Your task to perform on an android device: turn notification dots off Image 0: 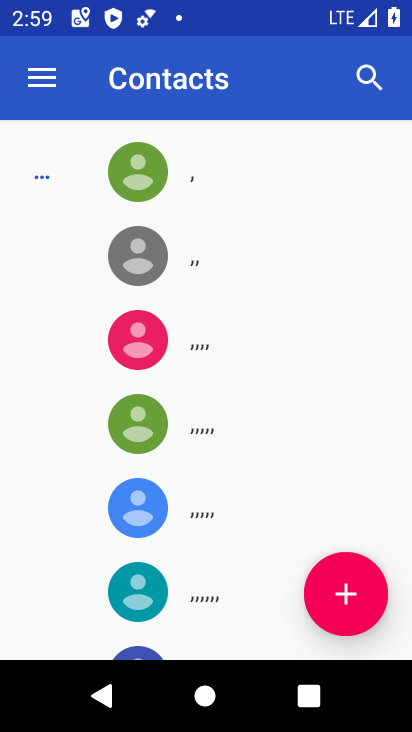
Step 0: press home button
Your task to perform on an android device: turn notification dots off Image 1: 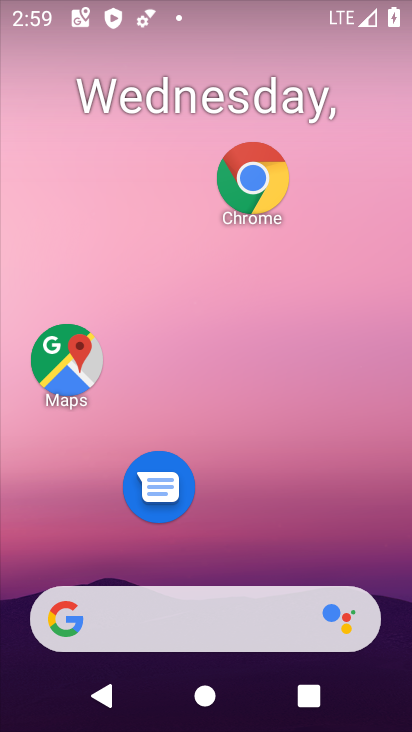
Step 1: drag from (206, 548) to (335, 36)
Your task to perform on an android device: turn notification dots off Image 2: 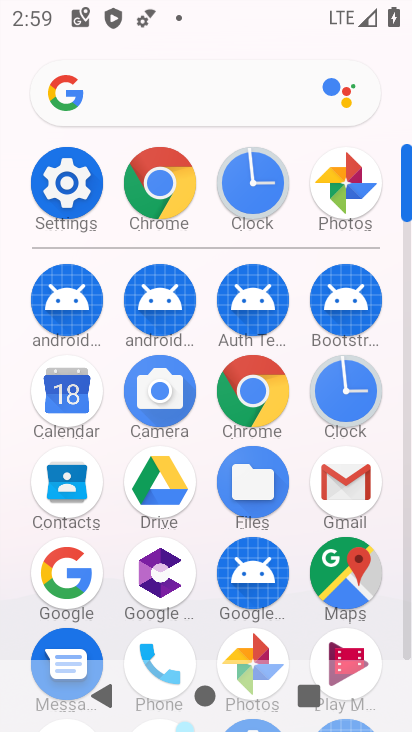
Step 2: click (68, 186)
Your task to perform on an android device: turn notification dots off Image 3: 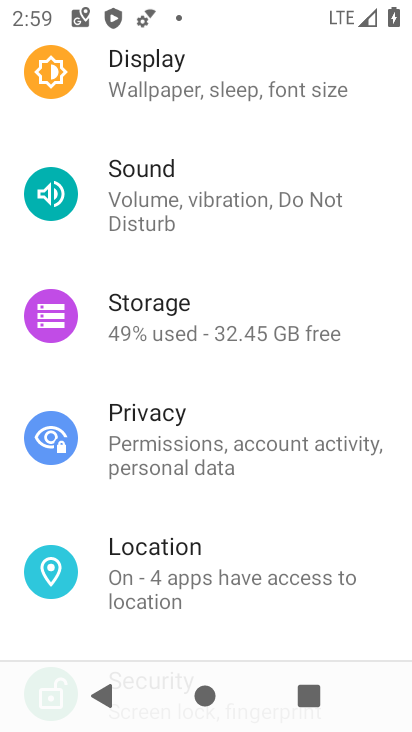
Step 3: drag from (222, 258) to (213, 477)
Your task to perform on an android device: turn notification dots off Image 4: 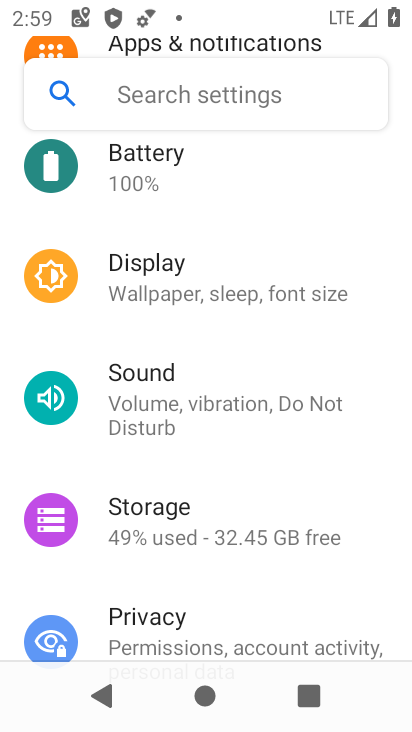
Step 4: drag from (184, 326) to (222, 517)
Your task to perform on an android device: turn notification dots off Image 5: 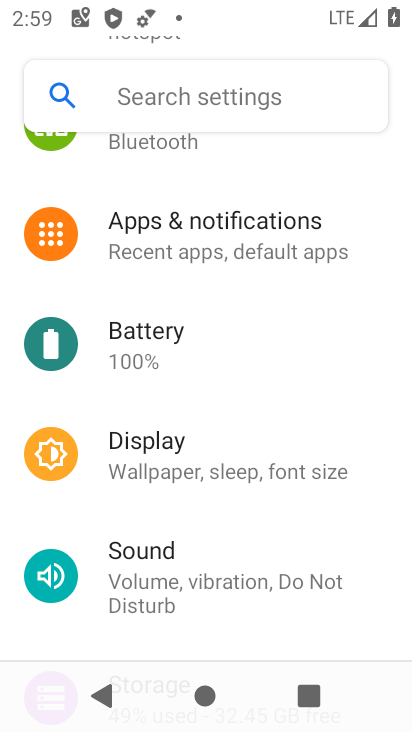
Step 5: click (256, 252)
Your task to perform on an android device: turn notification dots off Image 6: 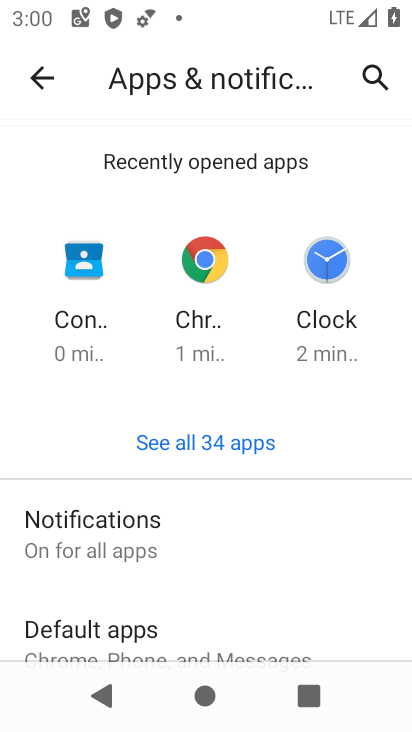
Step 6: click (239, 550)
Your task to perform on an android device: turn notification dots off Image 7: 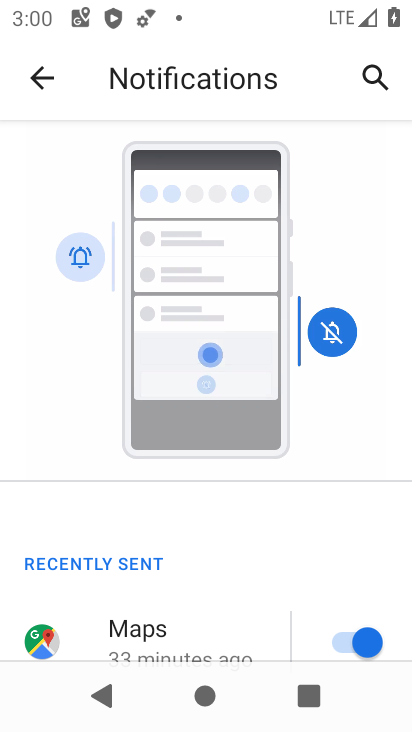
Step 7: drag from (238, 605) to (350, 175)
Your task to perform on an android device: turn notification dots off Image 8: 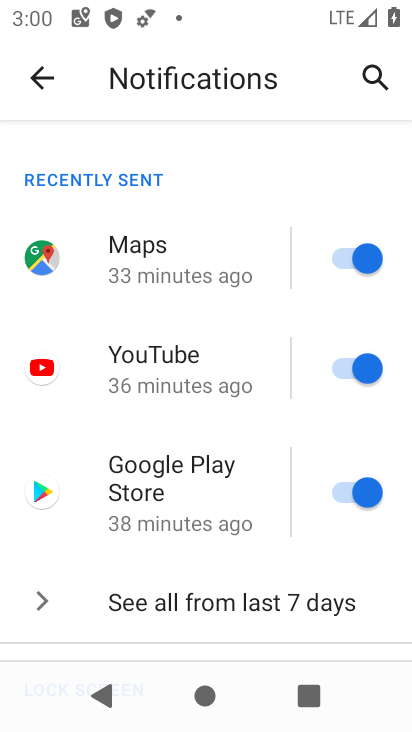
Step 8: drag from (162, 532) to (259, 203)
Your task to perform on an android device: turn notification dots off Image 9: 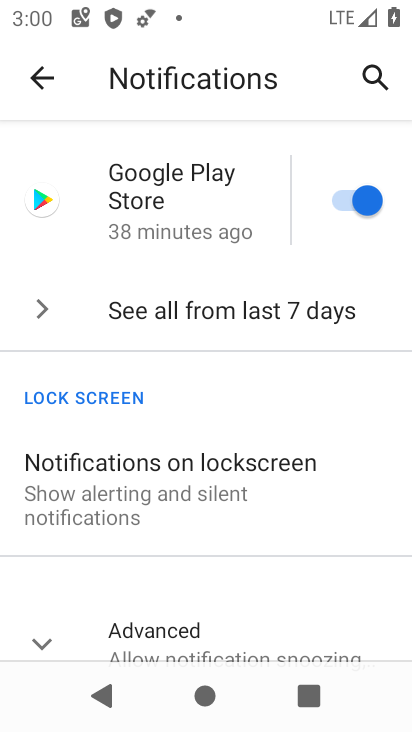
Step 9: click (152, 621)
Your task to perform on an android device: turn notification dots off Image 10: 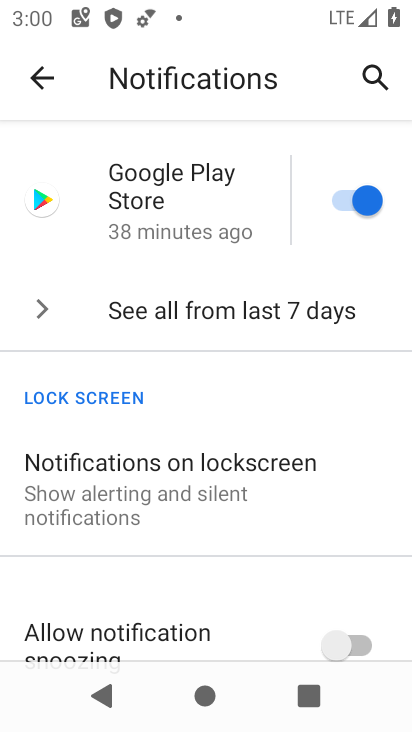
Step 10: drag from (152, 646) to (308, 186)
Your task to perform on an android device: turn notification dots off Image 11: 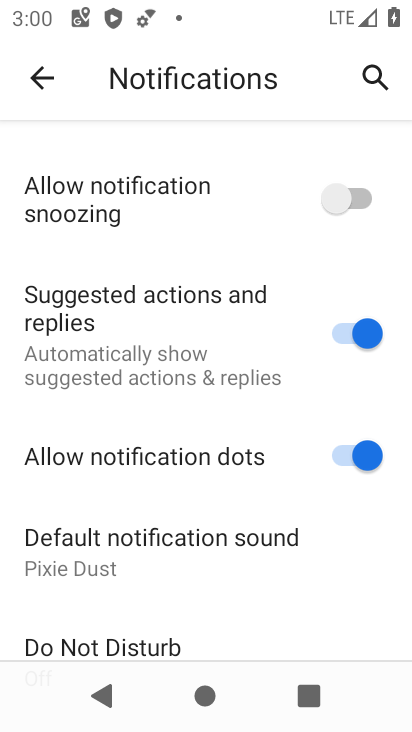
Step 11: click (361, 454)
Your task to perform on an android device: turn notification dots off Image 12: 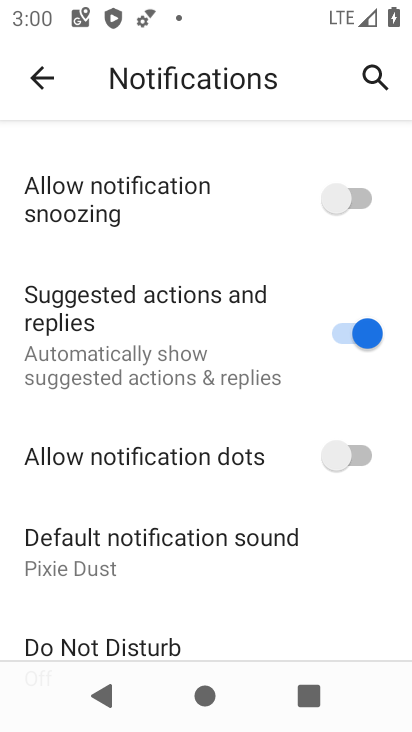
Step 12: task complete